Your task to perform on an android device: add a label to a message in the gmail app Image 0: 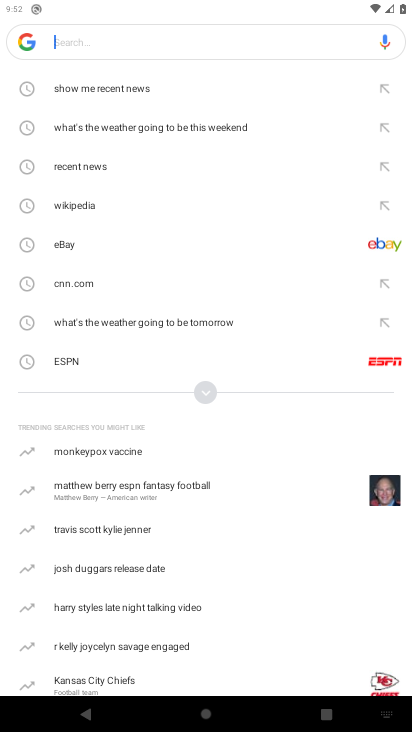
Step 0: press home button
Your task to perform on an android device: add a label to a message in the gmail app Image 1: 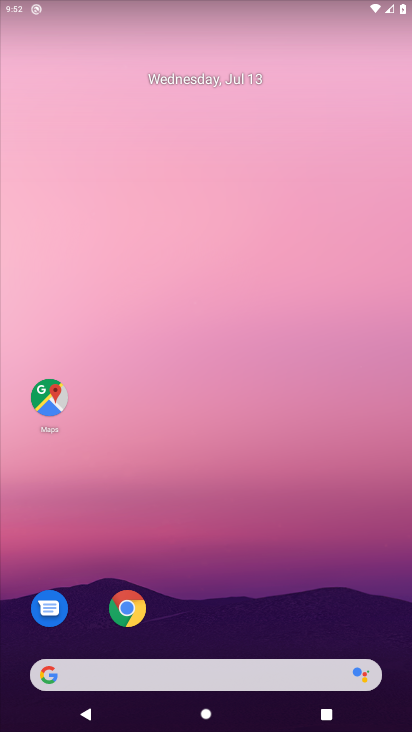
Step 1: drag from (116, 585) to (248, 118)
Your task to perform on an android device: add a label to a message in the gmail app Image 2: 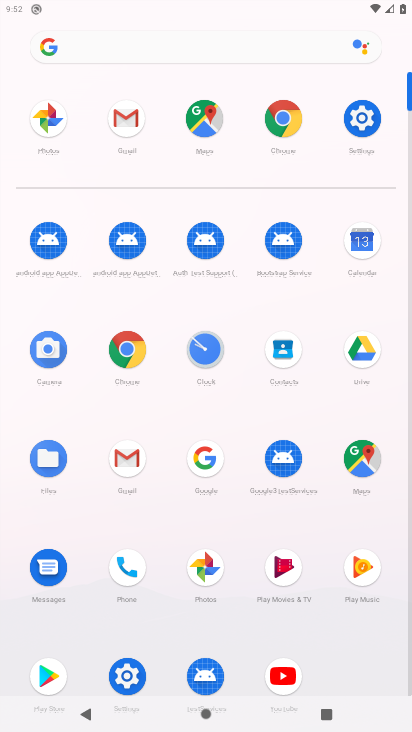
Step 2: click (130, 462)
Your task to perform on an android device: add a label to a message in the gmail app Image 3: 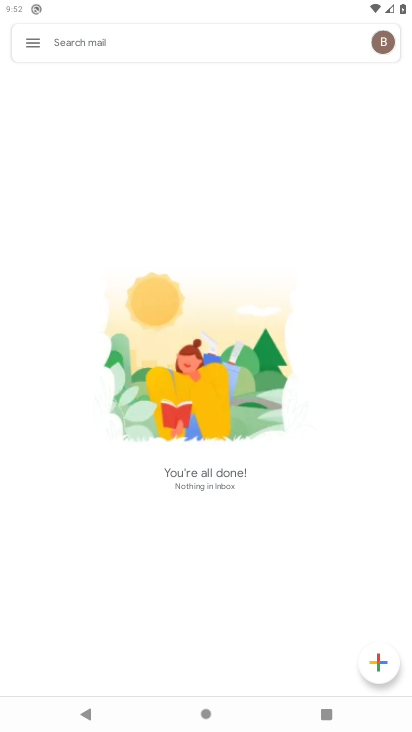
Step 3: click (34, 47)
Your task to perform on an android device: add a label to a message in the gmail app Image 4: 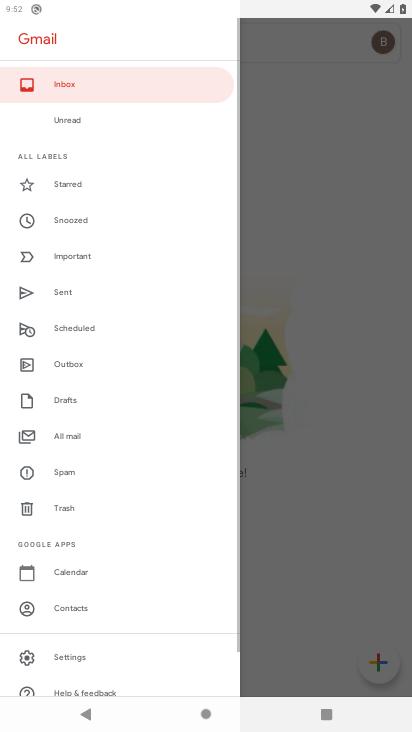
Step 4: click (123, 87)
Your task to perform on an android device: add a label to a message in the gmail app Image 5: 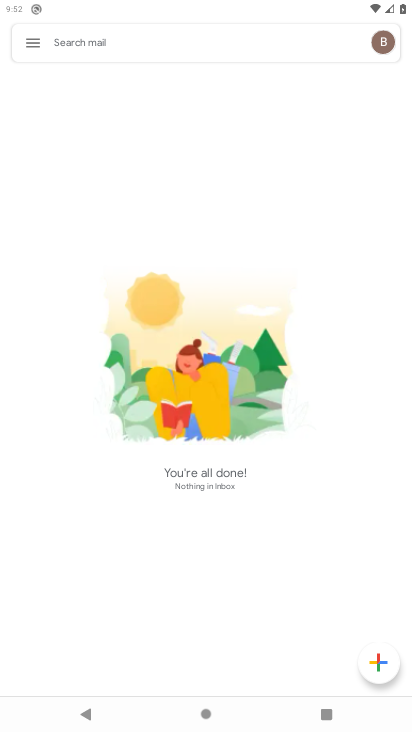
Step 5: task complete